Your task to perform on an android device: Open Google Maps Image 0: 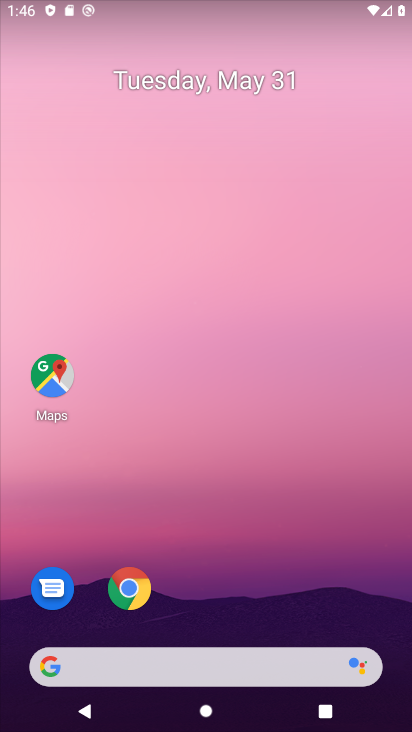
Step 0: click (47, 361)
Your task to perform on an android device: Open Google Maps Image 1: 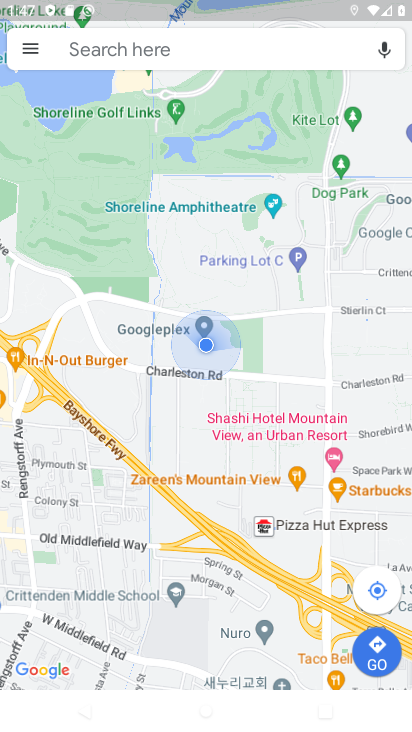
Step 1: task complete